Your task to perform on an android device: Open calendar and show me the first week of next month Image 0: 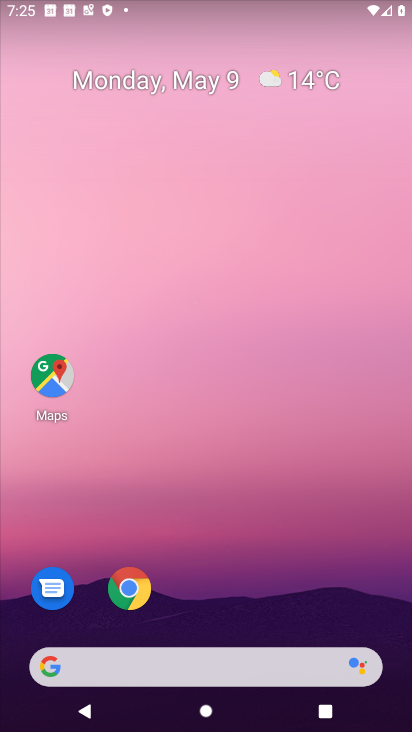
Step 0: drag from (295, 610) to (303, 9)
Your task to perform on an android device: Open calendar and show me the first week of next month Image 1: 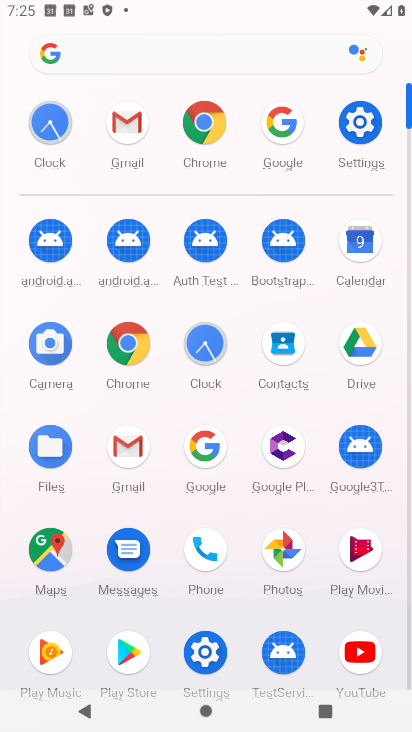
Step 1: click (346, 238)
Your task to perform on an android device: Open calendar and show me the first week of next month Image 2: 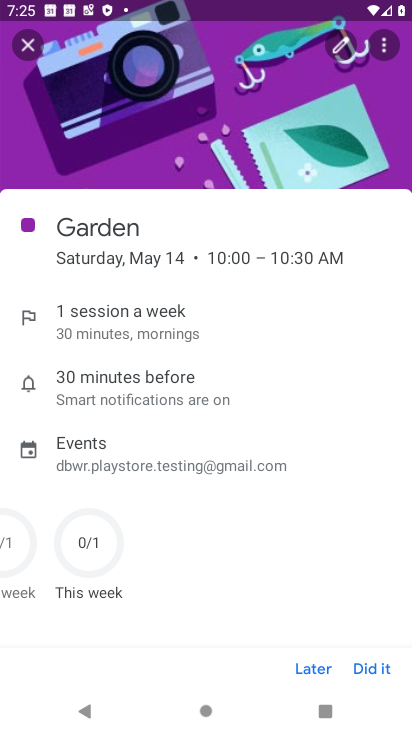
Step 2: press back button
Your task to perform on an android device: Open calendar and show me the first week of next month Image 3: 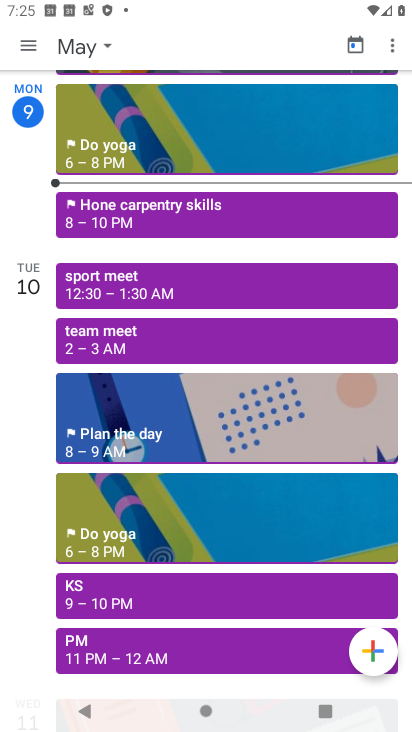
Step 3: click (68, 50)
Your task to perform on an android device: Open calendar and show me the first week of next month Image 4: 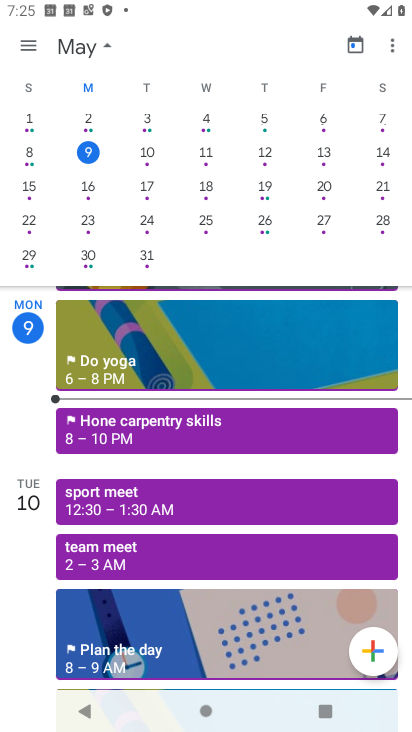
Step 4: drag from (306, 182) to (10, 134)
Your task to perform on an android device: Open calendar and show me the first week of next month Image 5: 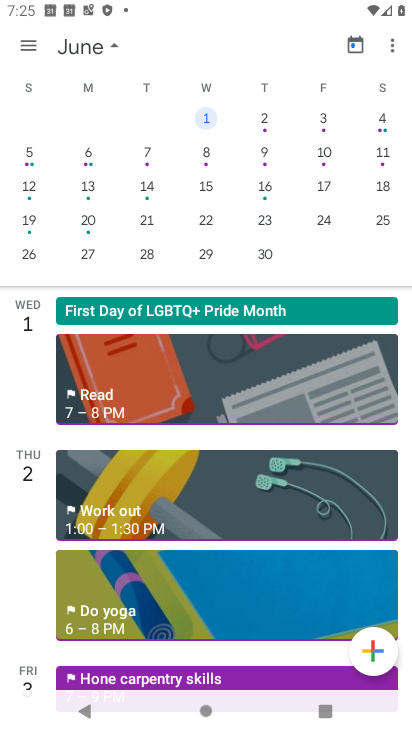
Step 5: click (38, 160)
Your task to perform on an android device: Open calendar and show me the first week of next month Image 6: 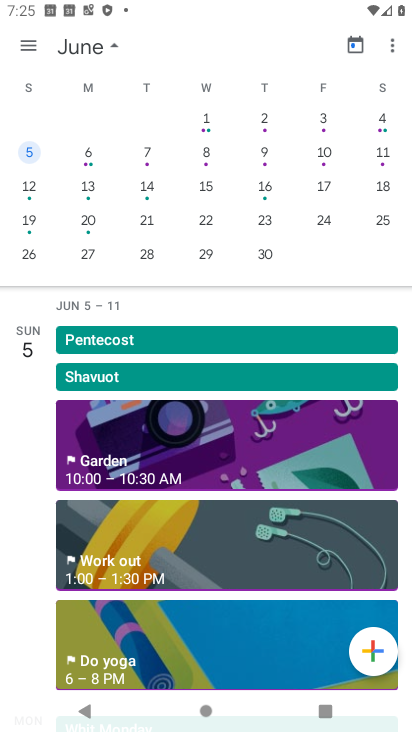
Step 6: task complete